Your task to perform on an android device: set an alarm Image 0: 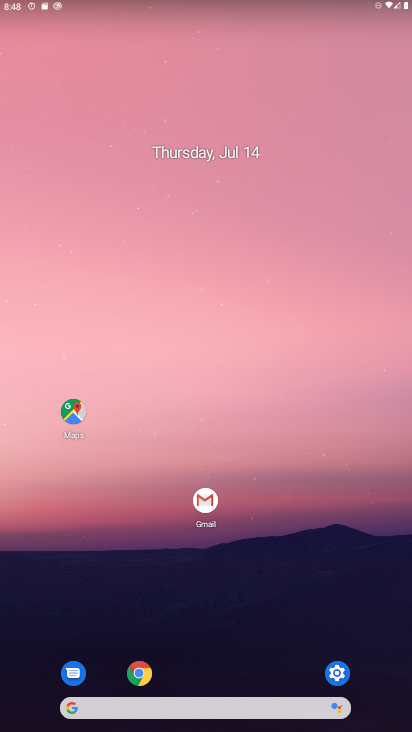
Step 0: press home button
Your task to perform on an android device: set an alarm Image 1: 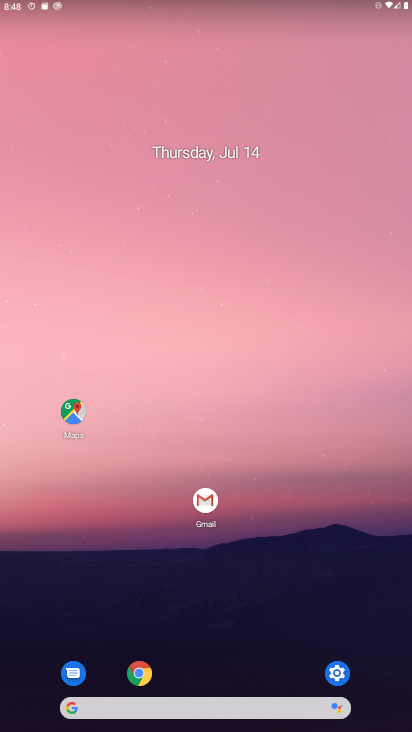
Step 1: drag from (239, 710) to (258, 274)
Your task to perform on an android device: set an alarm Image 2: 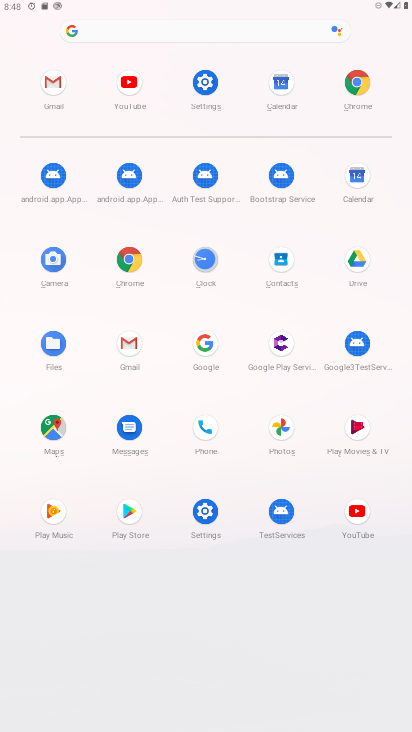
Step 2: click (216, 263)
Your task to perform on an android device: set an alarm Image 3: 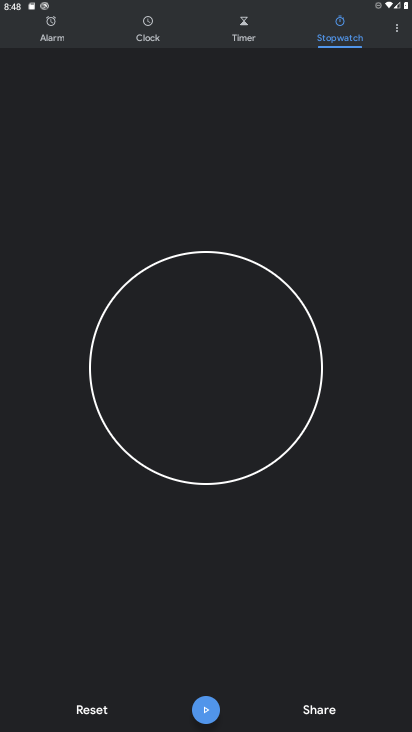
Step 3: click (68, 34)
Your task to perform on an android device: set an alarm Image 4: 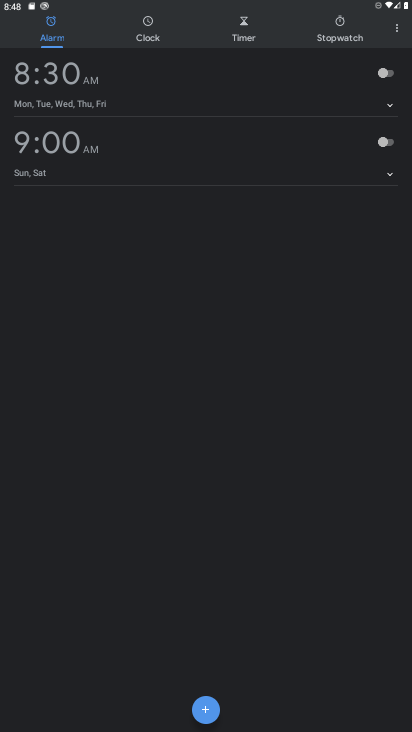
Step 4: click (383, 83)
Your task to perform on an android device: set an alarm Image 5: 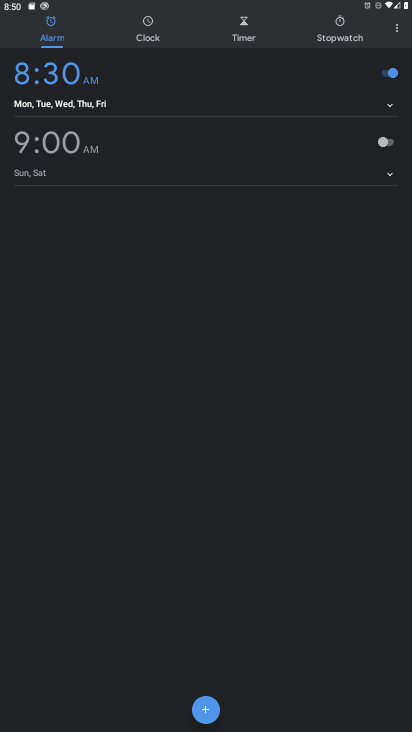
Step 5: task complete